Your task to perform on an android device: turn on sleep mode Image 0: 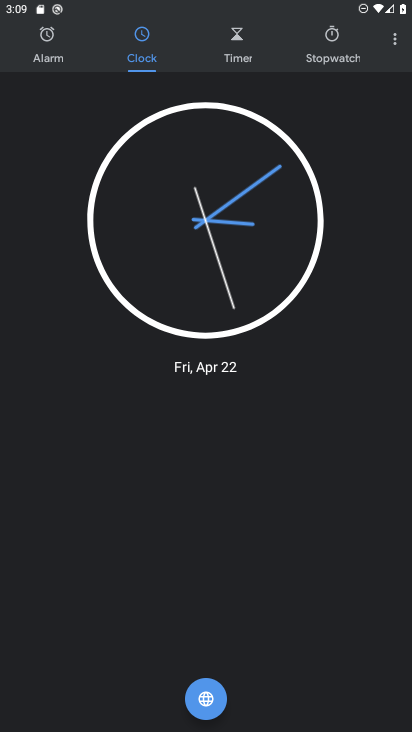
Step 0: press home button
Your task to perform on an android device: turn on sleep mode Image 1: 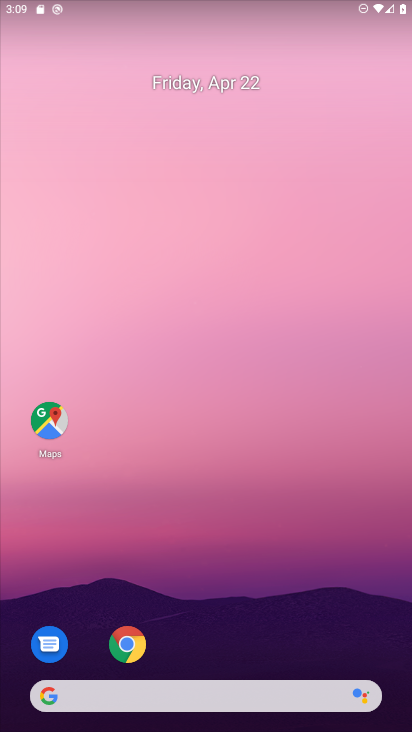
Step 1: drag from (257, 586) to (309, 137)
Your task to perform on an android device: turn on sleep mode Image 2: 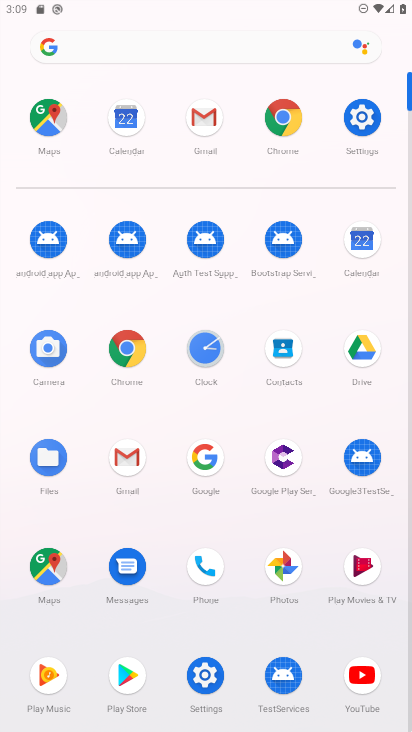
Step 2: click (208, 668)
Your task to perform on an android device: turn on sleep mode Image 3: 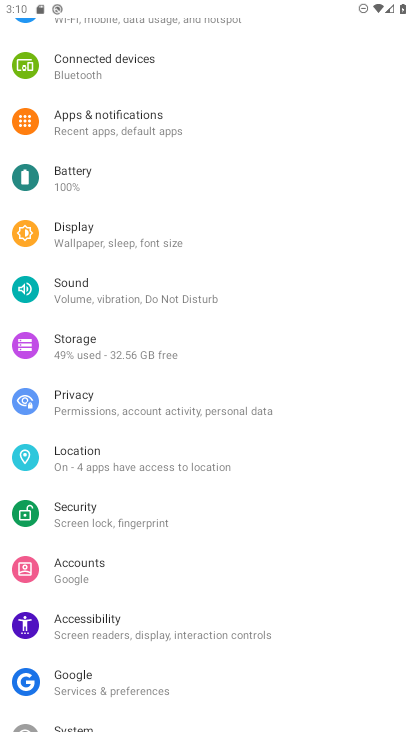
Step 3: click (81, 224)
Your task to perform on an android device: turn on sleep mode Image 4: 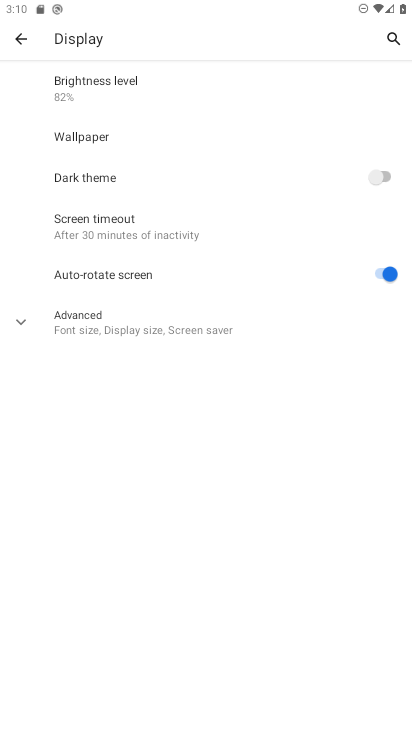
Step 4: click (99, 224)
Your task to perform on an android device: turn on sleep mode Image 5: 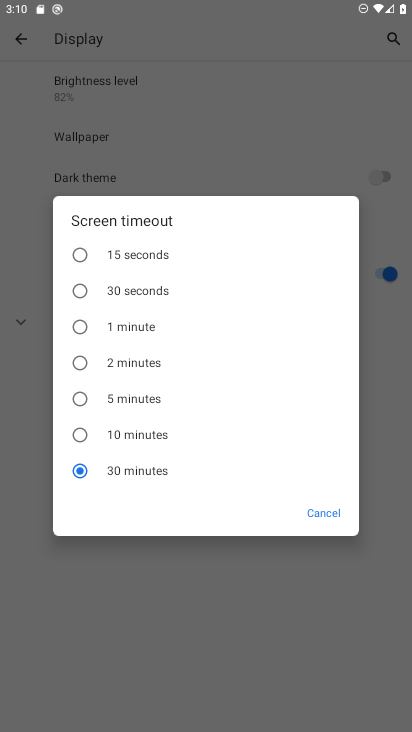
Step 5: task complete